Your task to perform on an android device: allow cookies in the chrome app Image 0: 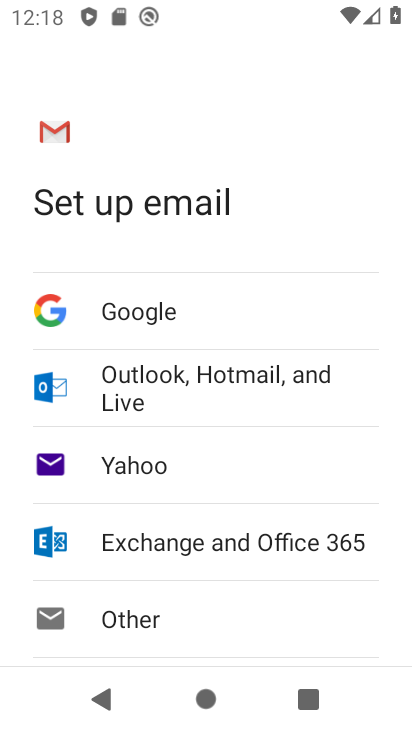
Step 0: press home button
Your task to perform on an android device: allow cookies in the chrome app Image 1: 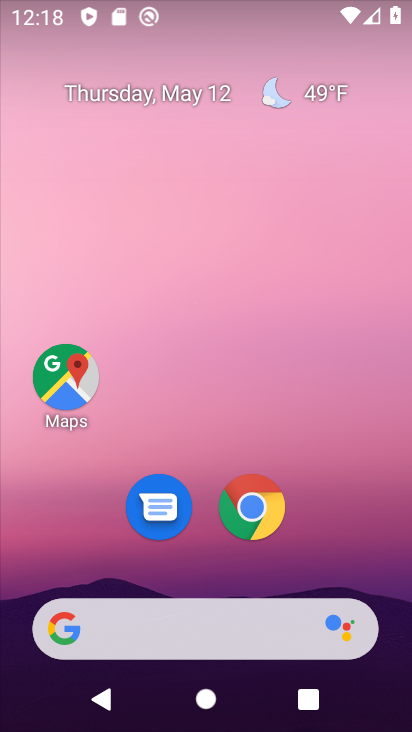
Step 1: click (236, 516)
Your task to perform on an android device: allow cookies in the chrome app Image 2: 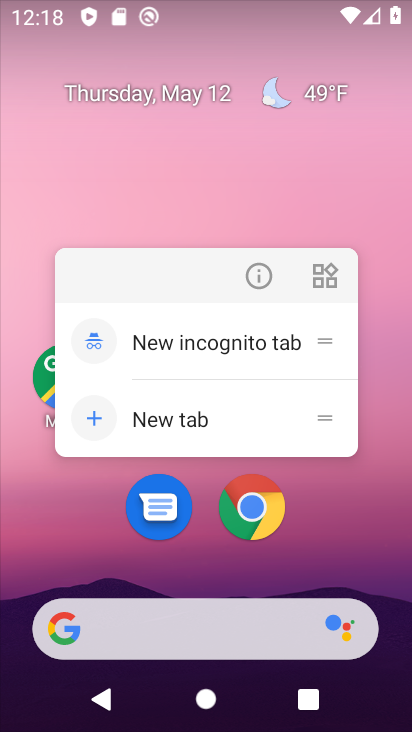
Step 2: click (237, 516)
Your task to perform on an android device: allow cookies in the chrome app Image 3: 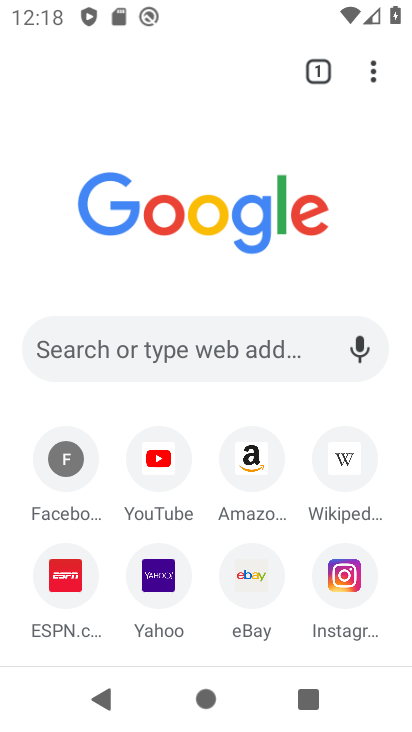
Step 3: click (371, 72)
Your task to perform on an android device: allow cookies in the chrome app Image 4: 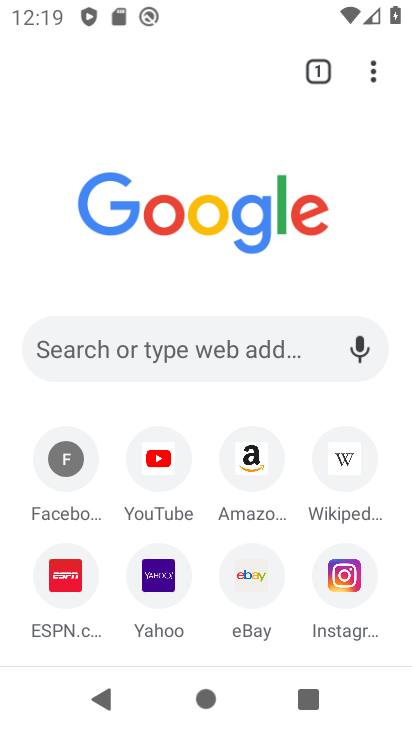
Step 4: click (368, 69)
Your task to perform on an android device: allow cookies in the chrome app Image 5: 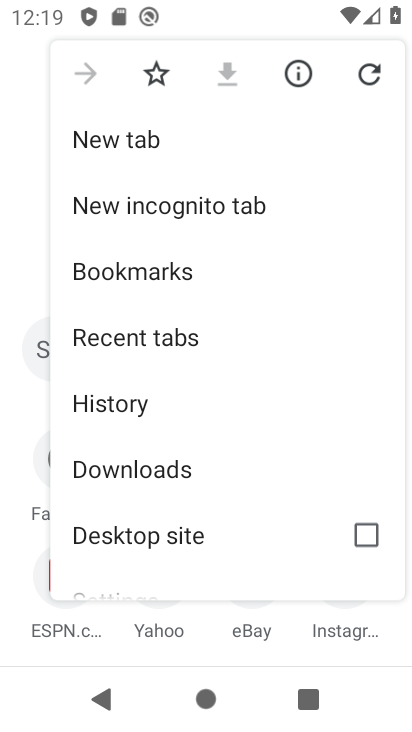
Step 5: drag from (215, 499) to (226, 254)
Your task to perform on an android device: allow cookies in the chrome app Image 6: 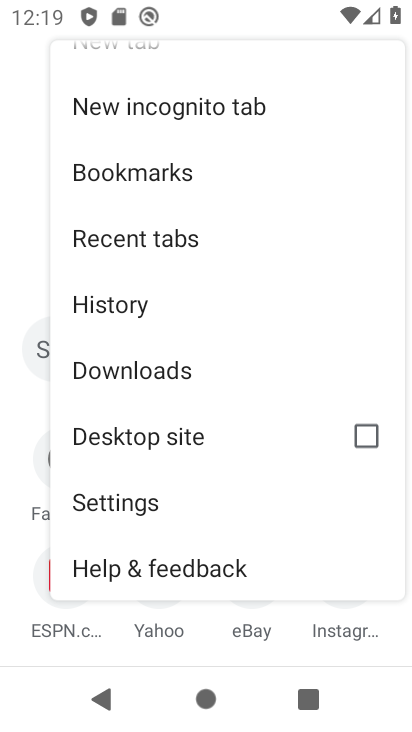
Step 6: click (173, 498)
Your task to perform on an android device: allow cookies in the chrome app Image 7: 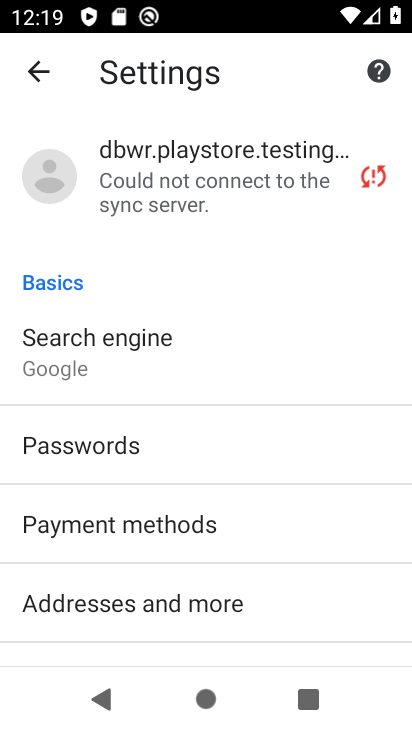
Step 7: drag from (155, 541) to (221, 253)
Your task to perform on an android device: allow cookies in the chrome app Image 8: 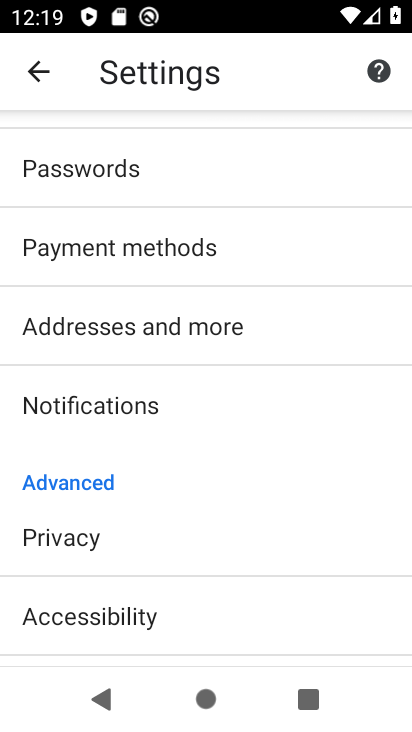
Step 8: drag from (148, 549) to (162, 337)
Your task to perform on an android device: allow cookies in the chrome app Image 9: 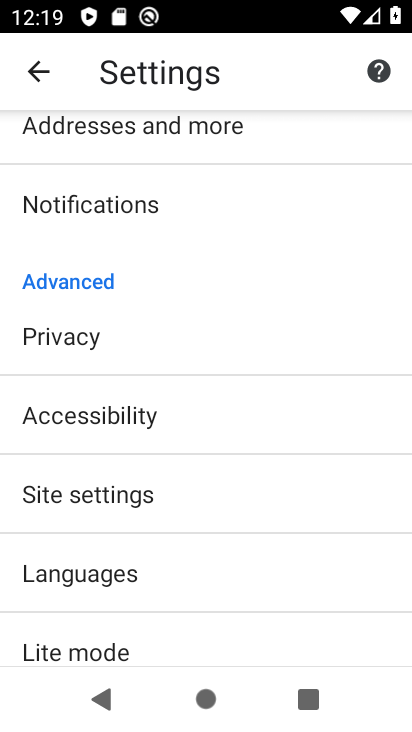
Step 9: click (161, 473)
Your task to perform on an android device: allow cookies in the chrome app Image 10: 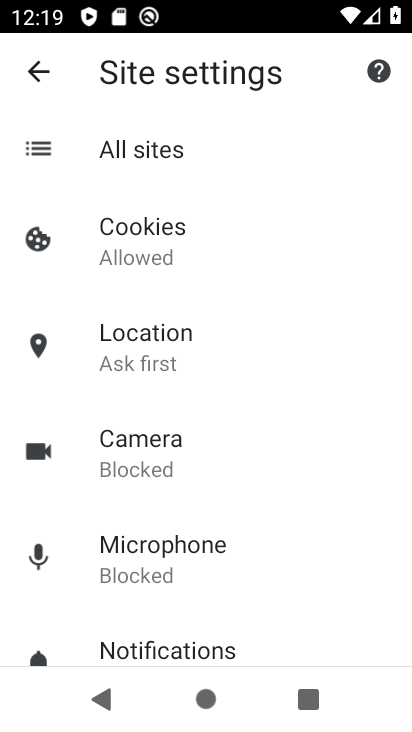
Step 10: click (171, 236)
Your task to perform on an android device: allow cookies in the chrome app Image 11: 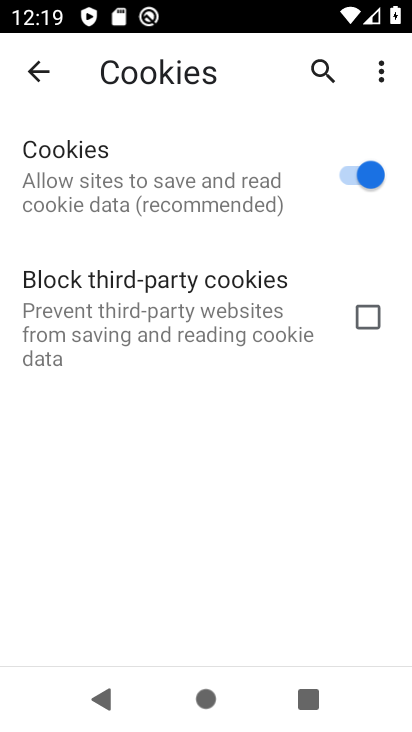
Step 11: task complete